Your task to perform on an android device: turn on priority inbox in the gmail app Image 0: 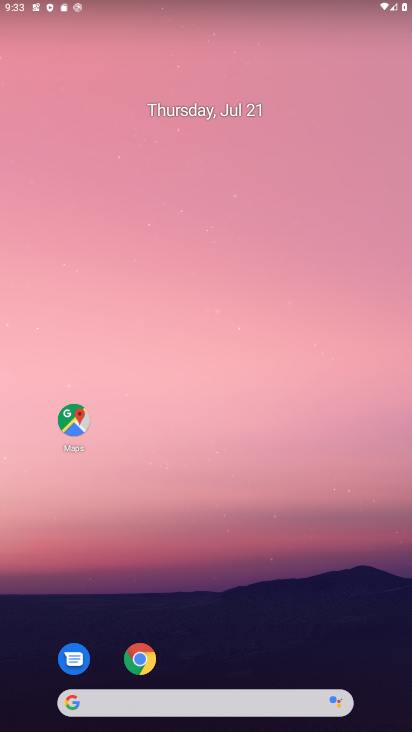
Step 0: press home button
Your task to perform on an android device: turn on priority inbox in the gmail app Image 1: 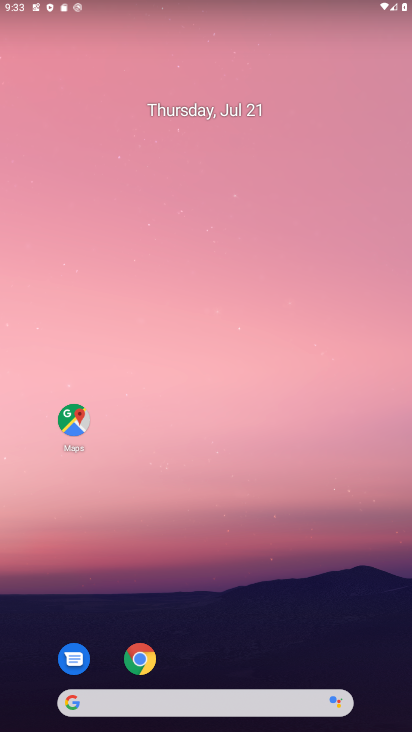
Step 1: drag from (217, 659) to (269, 286)
Your task to perform on an android device: turn on priority inbox in the gmail app Image 2: 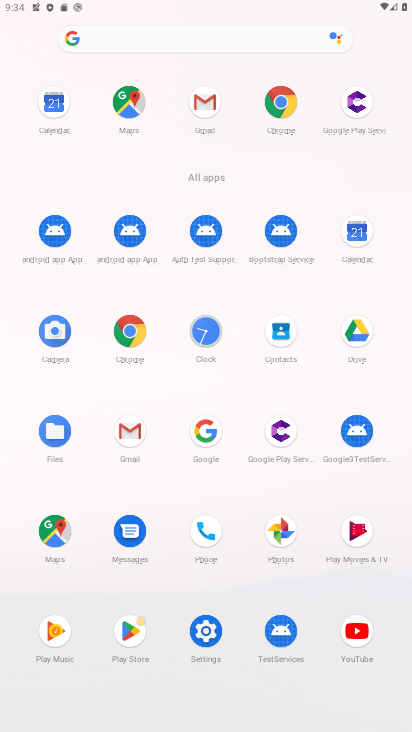
Step 2: click (123, 436)
Your task to perform on an android device: turn on priority inbox in the gmail app Image 3: 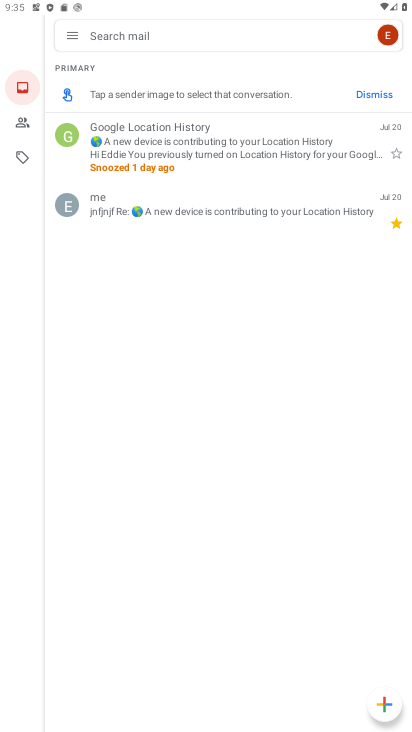
Step 3: click (70, 39)
Your task to perform on an android device: turn on priority inbox in the gmail app Image 4: 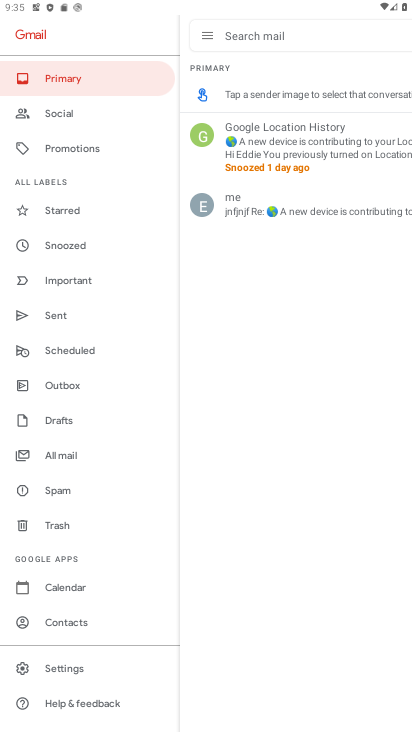
Step 4: click (67, 664)
Your task to perform on an android device: turn on priority inbox in the gmail app Image 5: 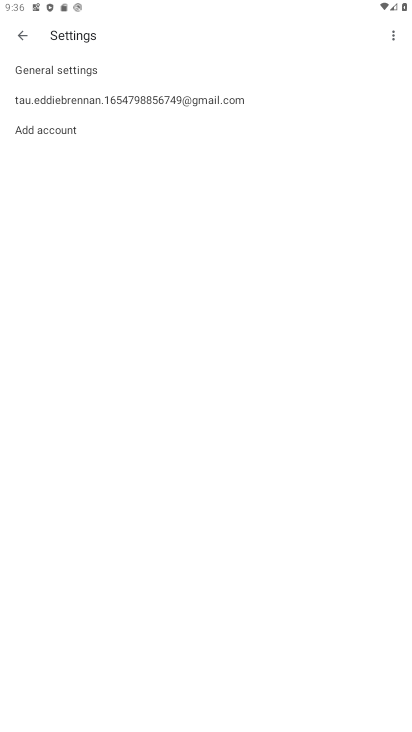
Step 5: click (82, 101)
Your task to perform on an android device: turn on priority inbox in the gmail app Image 6: 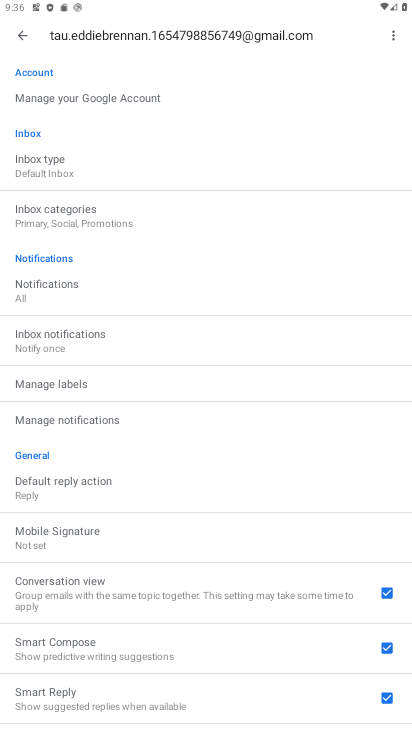
Step 6: click (68, 162)
Your task to perform on an android device: turn on priority inbox in the gmail app Image 7: 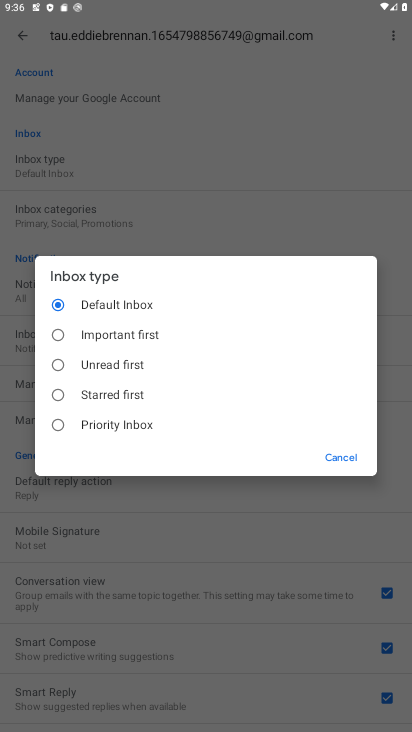
Step 7: click (96, 419)
Your task to perform on an android device: turn on priority inbox in the gmail app Image 8: 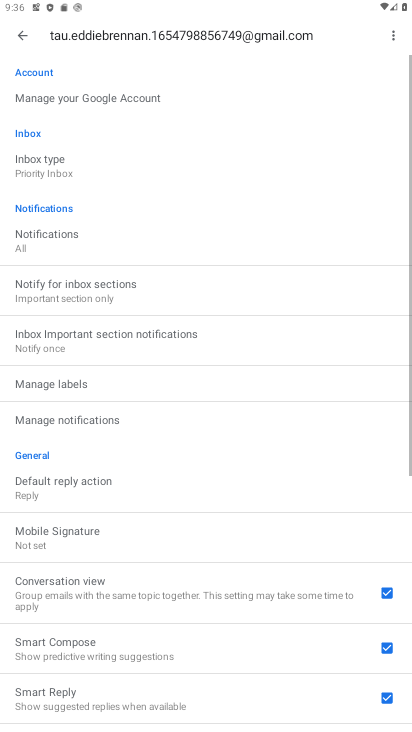
Step 8: task complete